Your task to perform on an android device: delete location history Image 0: 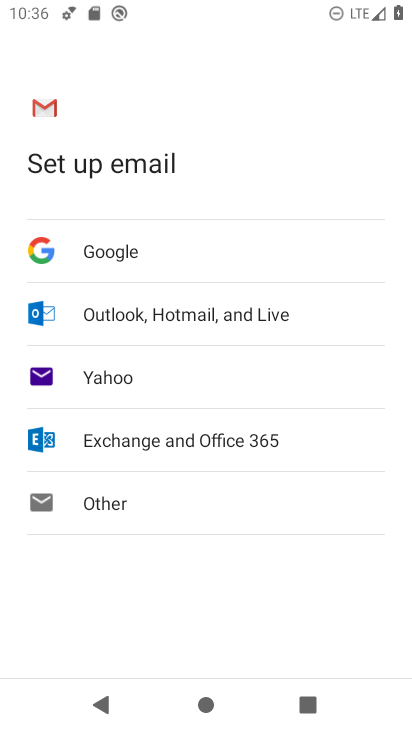
Step 0: press home button
Your task to perform on an android device: delete location history Image 1: 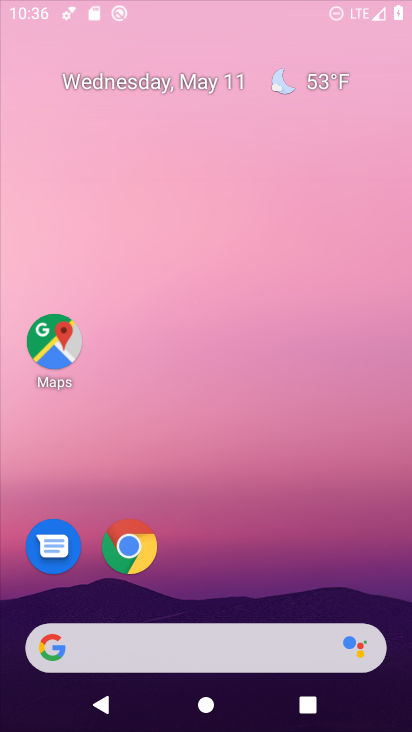
Step 1: drag from (394, 620) to (315, 68)
Your task to perform on an android device: delete location history Image 2: 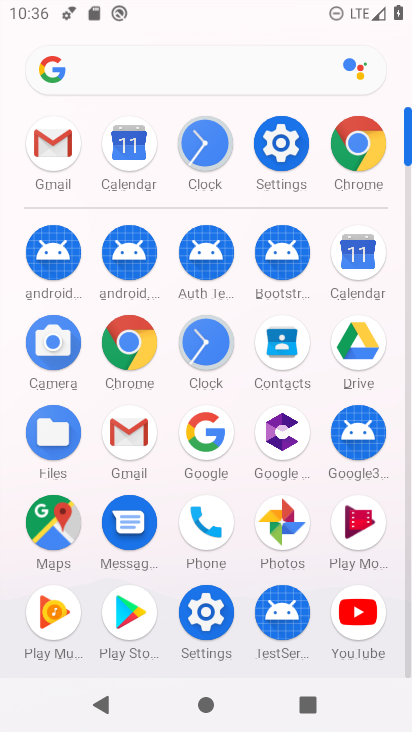
Step 2: click (204, 622)
Your task to perform on an android device: delete location history Image 3: 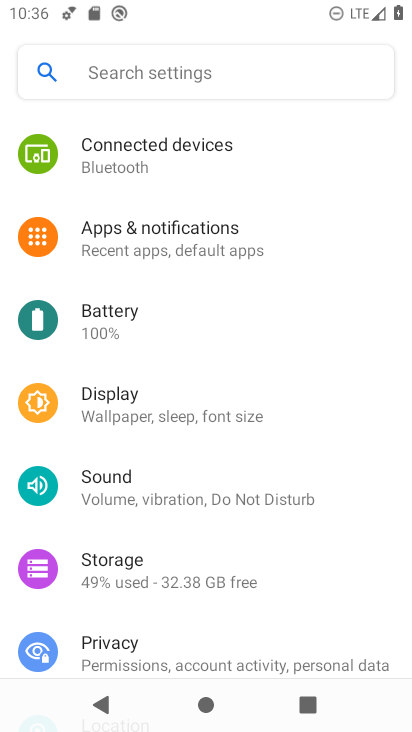
Step 3: drag from (186, 566) to (202, 217)
Your task to perform on an android device: delete location history Image 4: 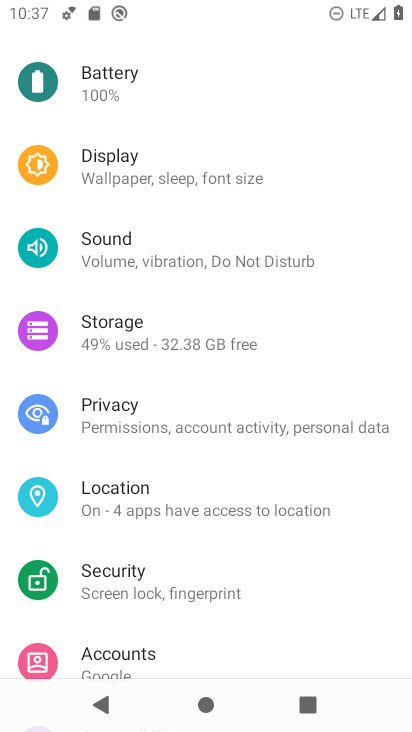
Step 4: click (224, 499)
Your task to perform on an android device: delete location history Image 5: 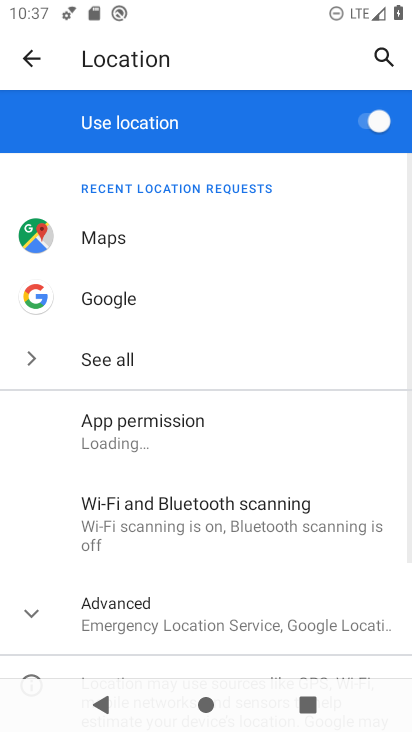
Step 5: click (181, 597)
Your task to perform on an android device: delete location history Image 6: 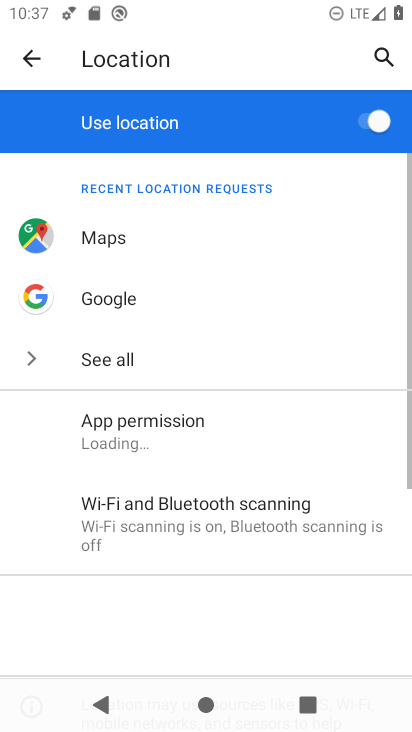
Step 6: drag from (180, 597) to (164, 136)
Your task to perform on an android device: delete location history Image 7: 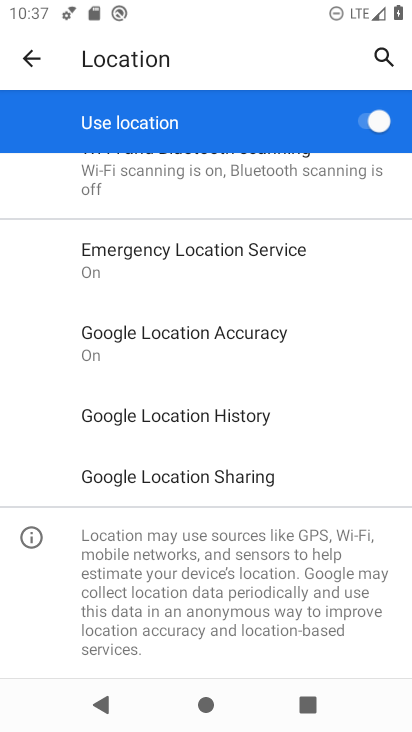
Step 7: click (210, 426)
Your task to perform on an android device: delete location history Image 8: 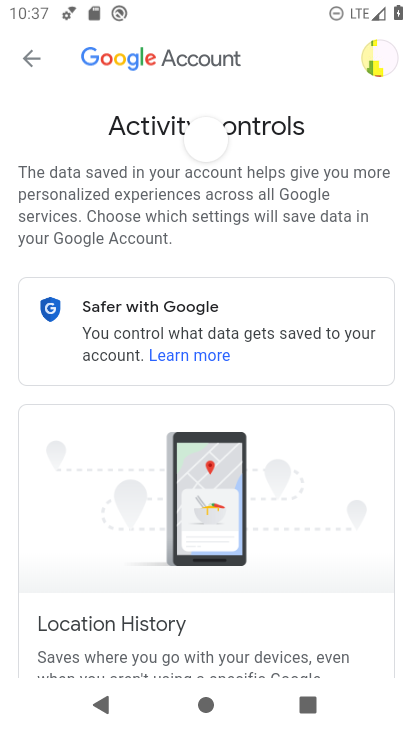
Step 8: drag from (321, 608) to (178, 94)
Your task to perform on an android device: delete location history Image 9: 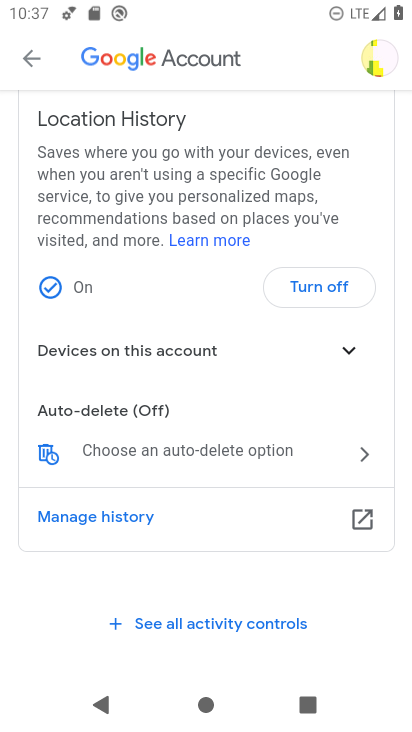
Step 9: click (165, 457)
Your task to perform on an android device: delete location history Image 10: 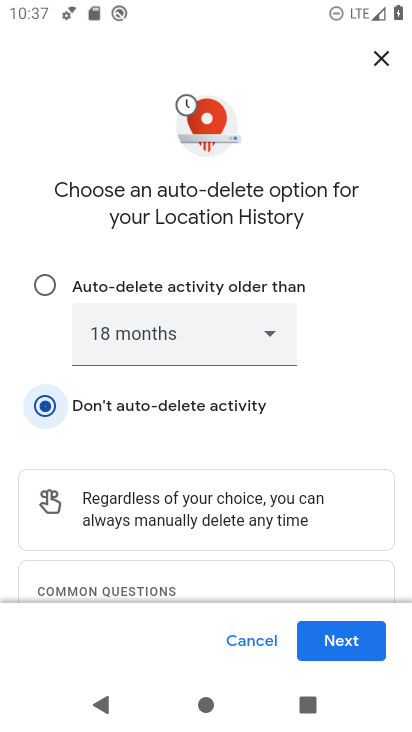
Step 10: click (341, 643)
Your task to perform on an android device: delete location history Image 11: 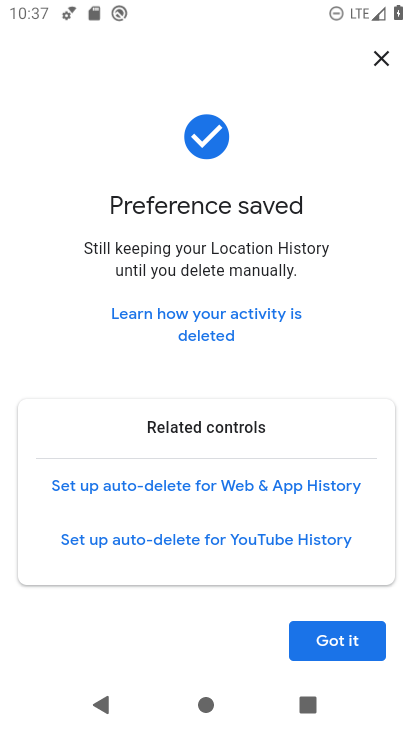
Step 11: task complete